Your task to perform on an android device: toggle notifications settings in the gmail app Image 0: 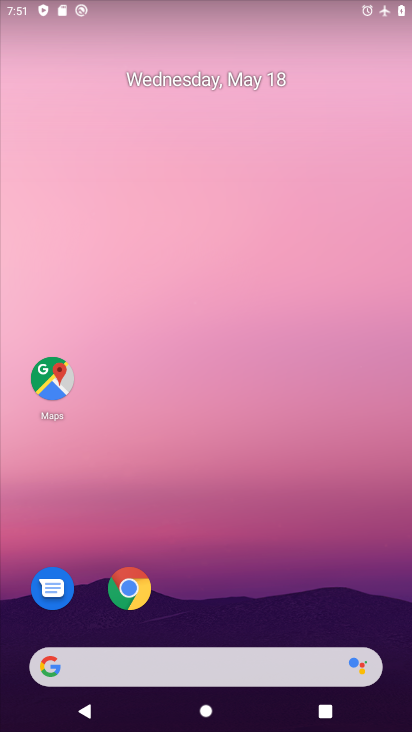
Step 0: drag from (233, 606) to (246, 269)
Your task to perform on an android device: toggle notifications settings in the gmail app Image 1: 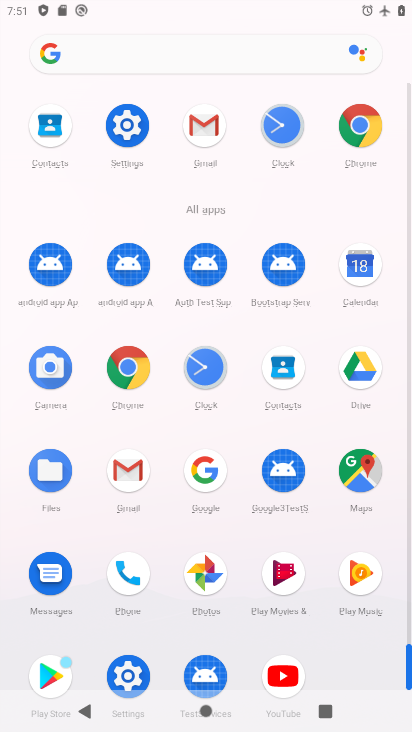
Step 1: click (140, 470)
Your task to perform on an android device: toggle notifications settings in the gmail app Image 2: 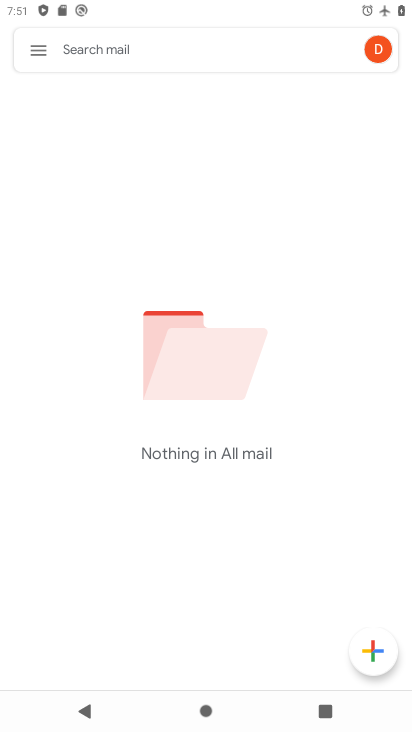
Step 2: click (36, 45)
Your task to perform on an android device: toggle notifications settings in the gmail app Image 3: 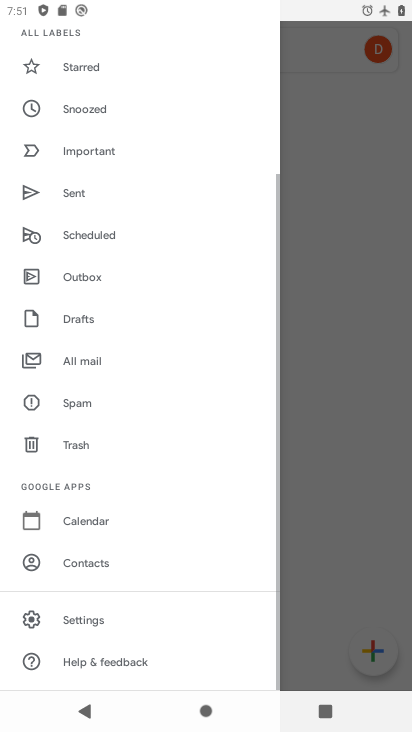
Step 3: drag from (82, 567) to (160, 276)
Your task to perform on an android device: toggle notifications settings in the gmail app Image 4: 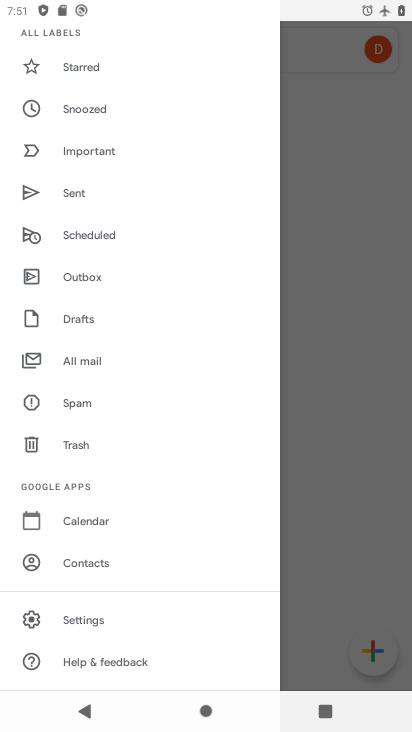
Step 4: click (89, 621)
Your task to perform on an android device: toggle notifications settings in the gmail app Image 5: 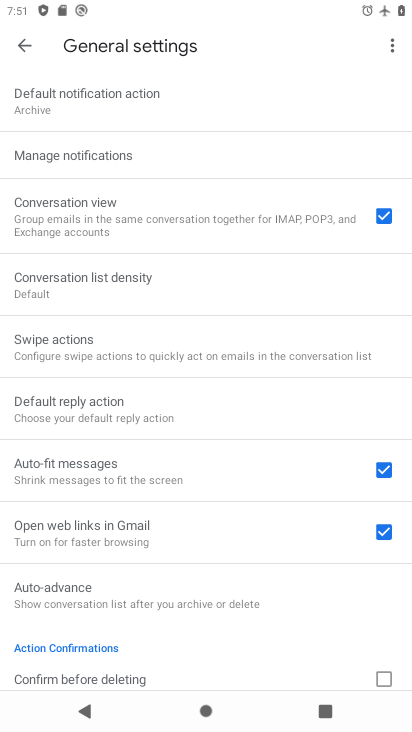
Step 5: click (82, 147)
Your task to perform on an android device: toggle notifications settings in the gmail app Image 6: 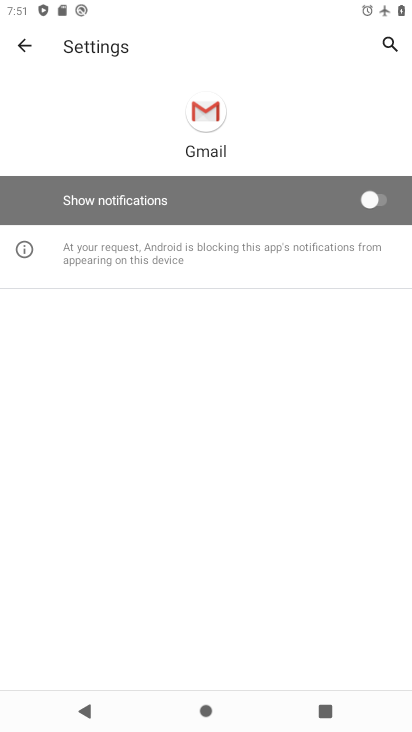
Step 6: click (376, 204)
Your task to perform on an android device: toggle notifications settings in the gmail app Image 7: 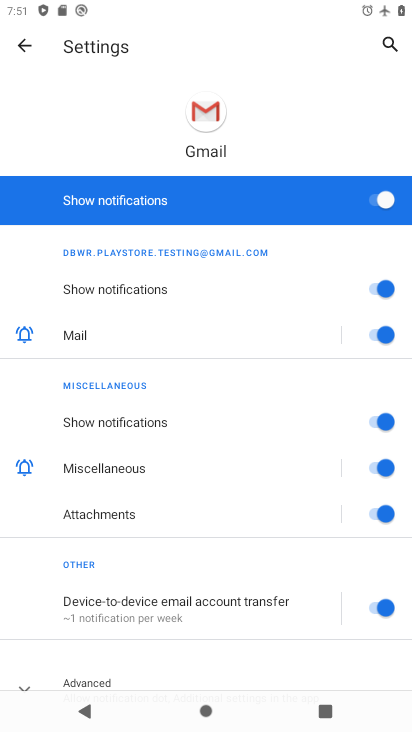
Step 7: task complete